Your task to perform on an android device: see tabs open on other devices in the chrome app Image 0: 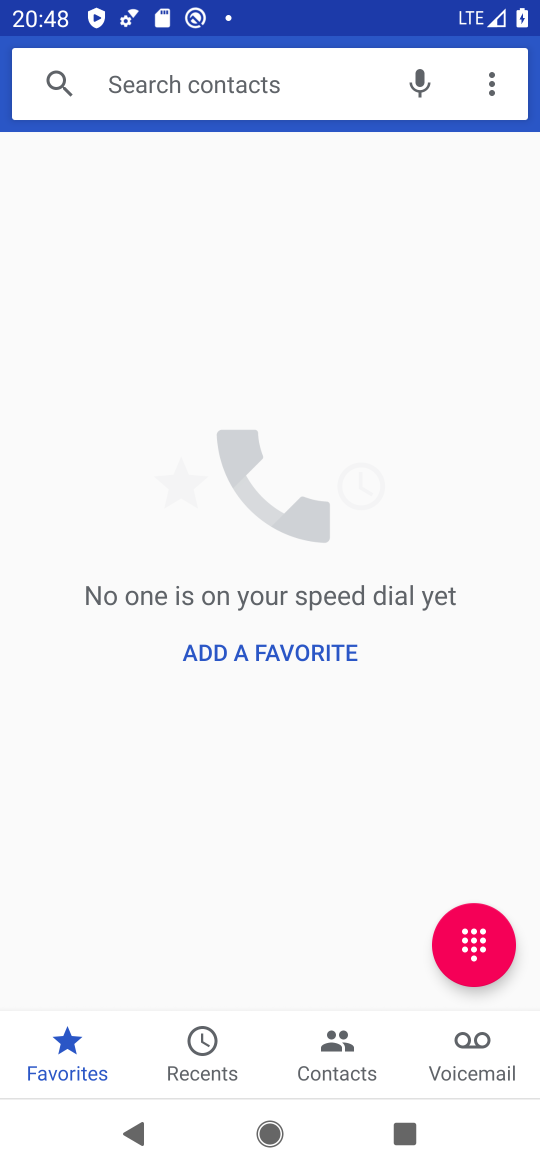
Step 0: press home button
Your task to perform on an android device: see tabs open on other devices in the chrome app Image 1: 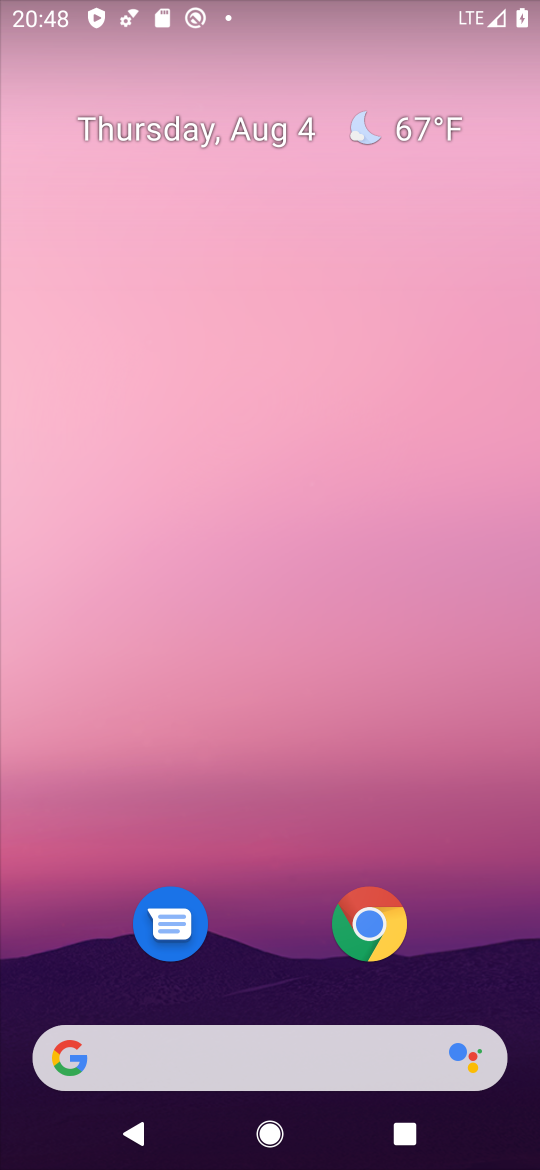
Step 1: click (354, 942)
Your task to perform on an android device: see tabs open on other devices in the chrome app Image 2: 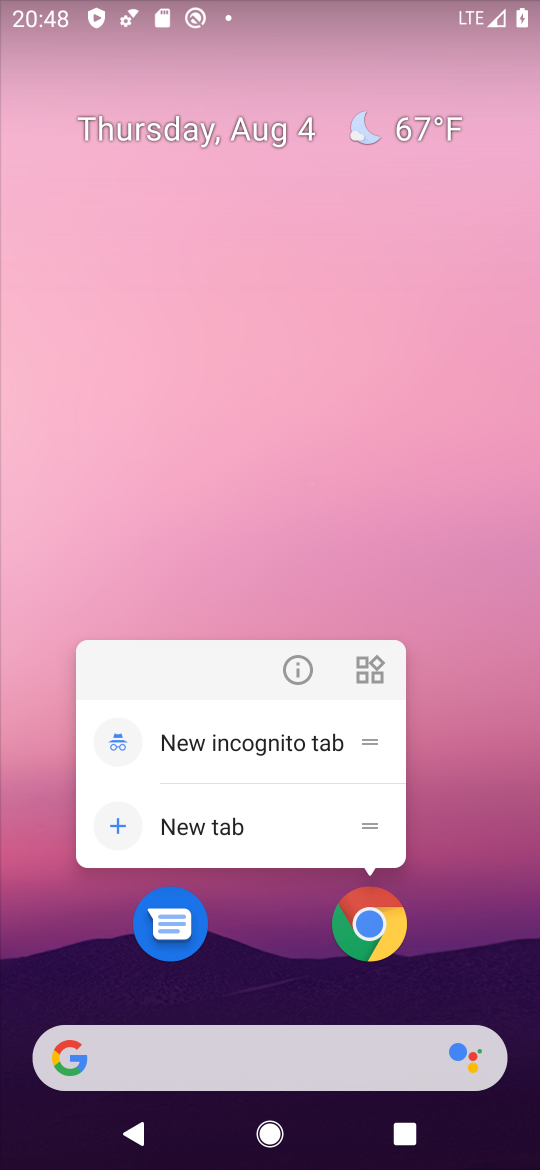
Step 2: click (355, 933)
Your task to perform on an android device: see tabs open on other devices in the chrome app Image 3: 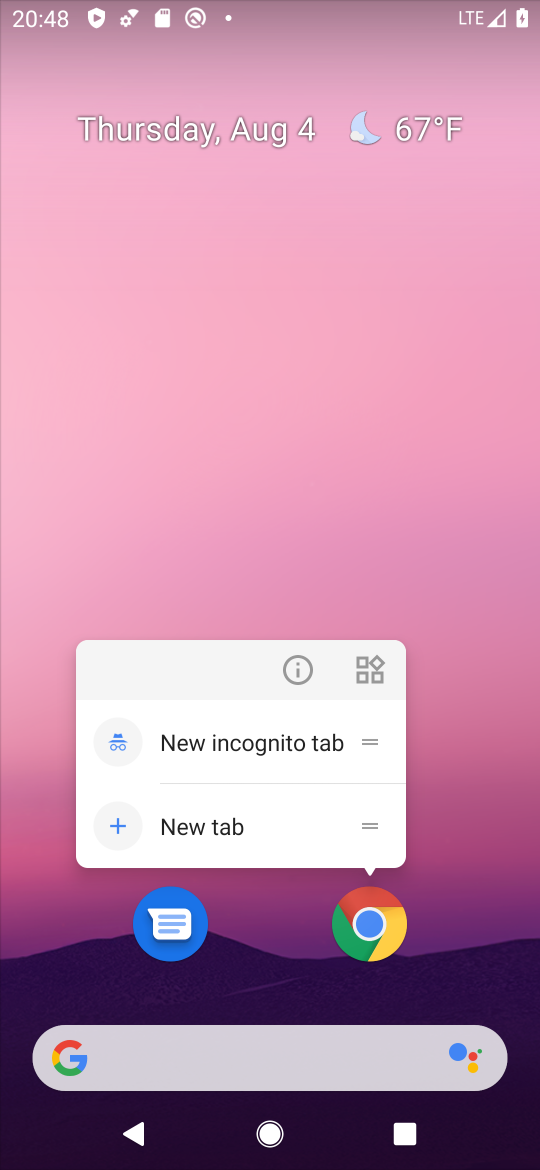
Step 3: click (348, 929)
Your task to perform on an android device: see tabs open on other devices in the chrome app Image 4: 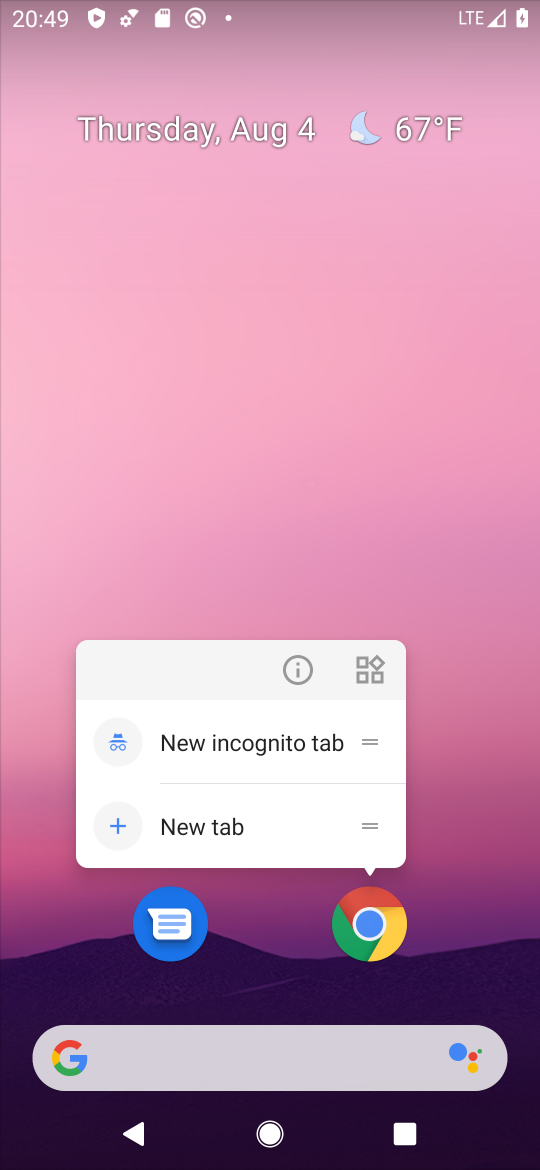
Step 4: click (348, 929)
Your task to perform on an android device: see tabs open on other devices in the chrome app Image 5: 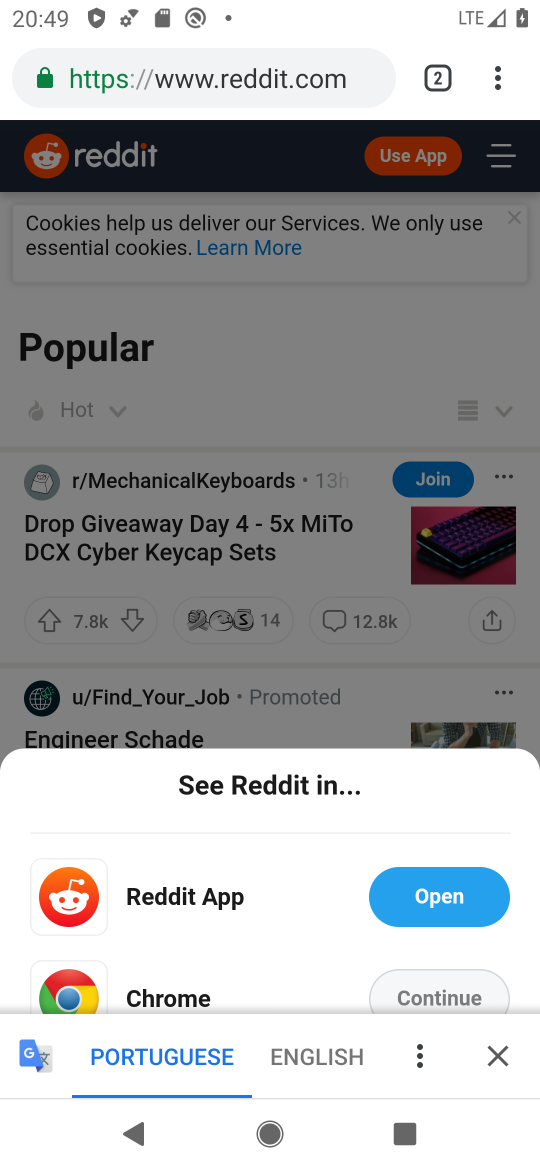
Step 5: click (423, 83)
Your task to perform on an android device: see tabs open on other devices in the chrome app Image 6: 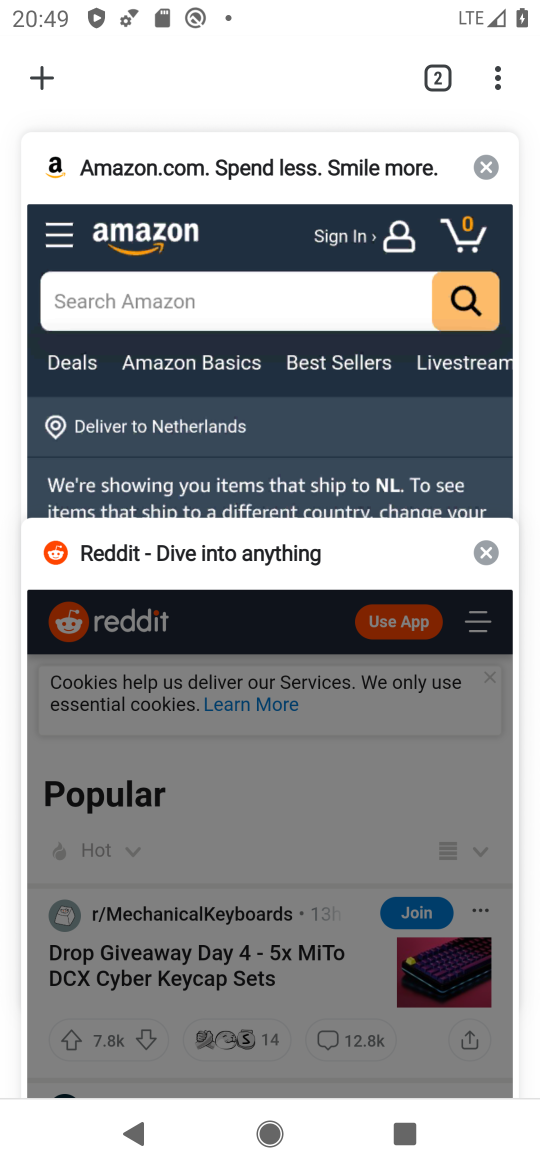
Step 6: task complete